Your task to perform on an android device: show emergency info Image 0: 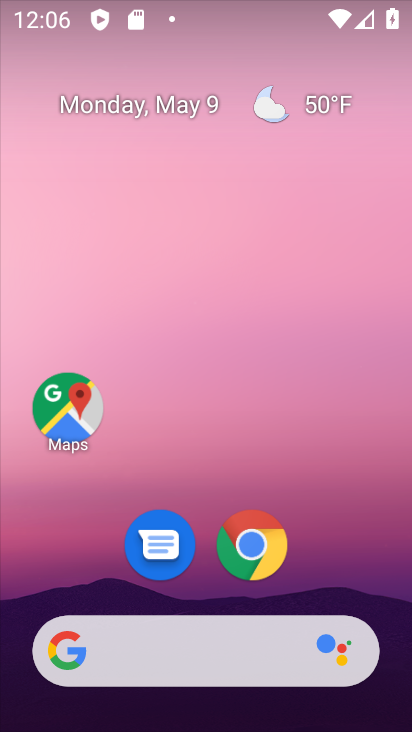
Step 0: drag from (222, 582) to (239, 23)
Your task to perform on an android device: show emergency info Image 1: 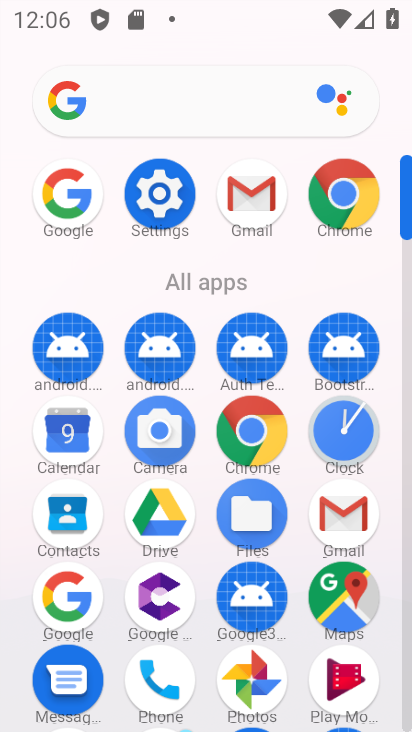
Step 1: click (161, 176)
Your task to perform on an android device: show emergency info Image 2: 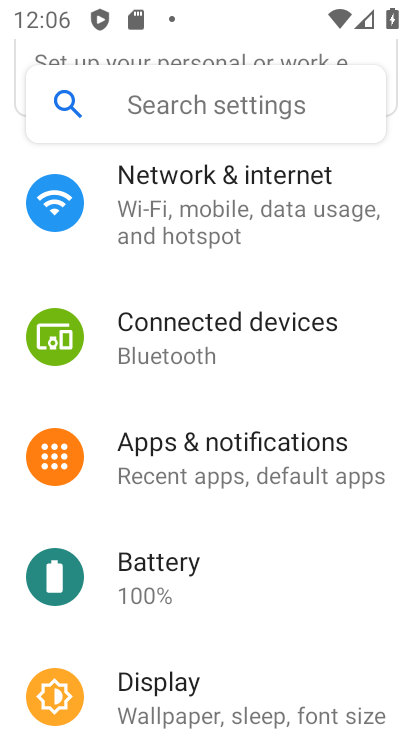
Step 2: drag from (204, 641) to (174, 174)
Your task to perform on an android device: show emergency info Image 3: 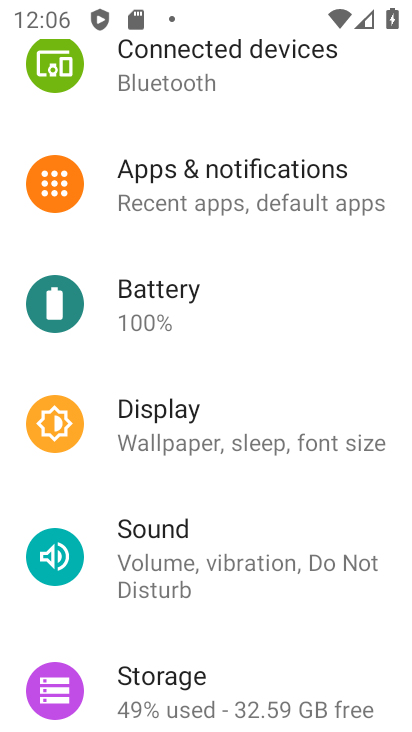
Step 3: drag from (219, 667) to (225, 191)
Your task to perform on an android device: show emergency info Image 4: 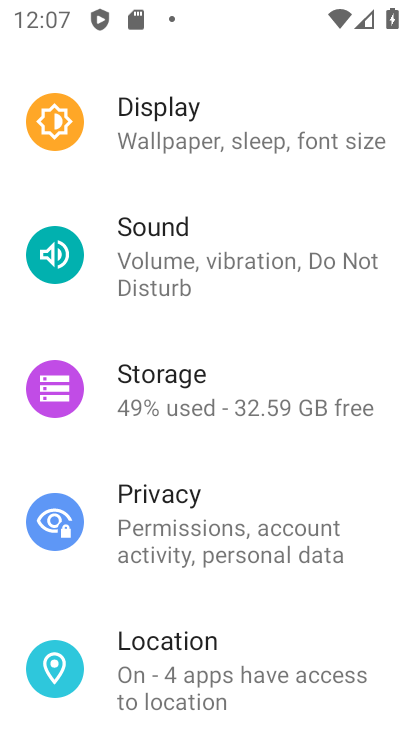
Step 4: drag from (198, 674) to (248, 123)
Your task to perform on an android device: show emergency info Image 5: 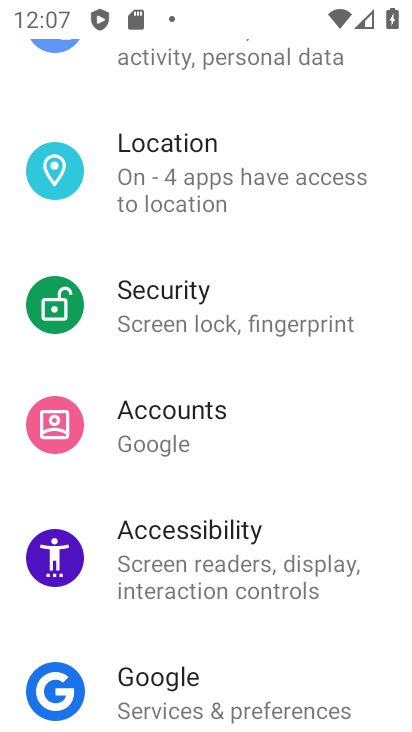
Step 5: drag from (205, 600) to (213, 186)
Your task to perform on an android device: show emergency info Image 6: 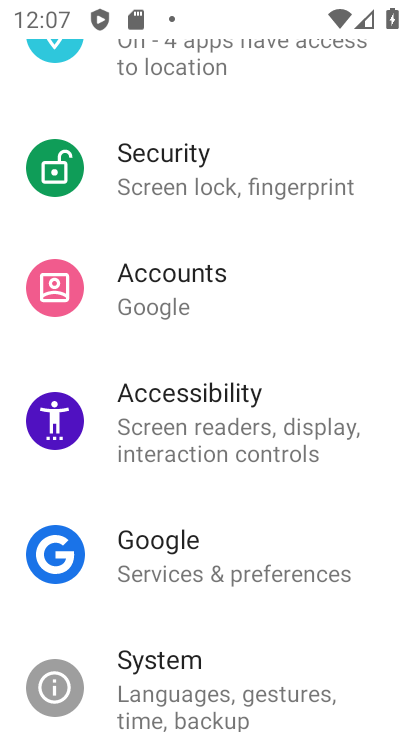
Step 6: drag from (177, 616) to (190, 204)
Your task to perform on an android device: show emergency info Image 7: 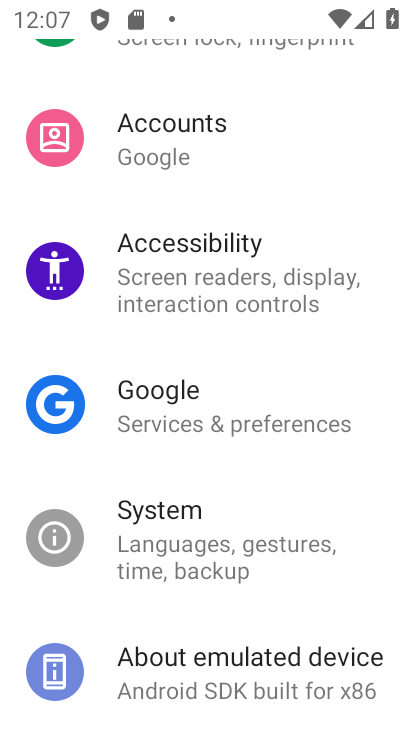
Step 7: drag from (198, 638) to (221, 283)
Your task to perform on an android device: show emergency info Image 8: 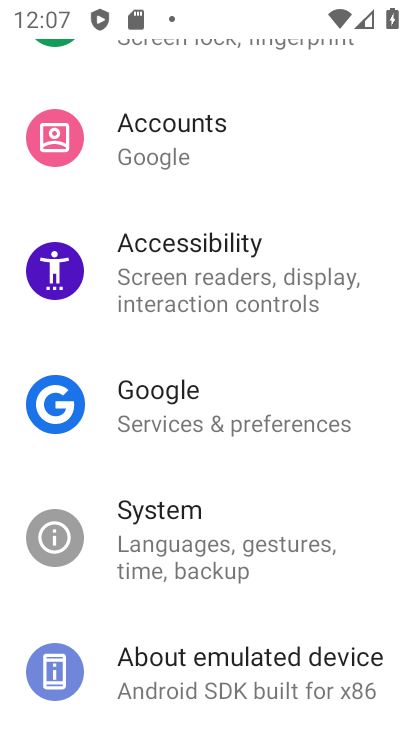
Step 8: click (212, 652)
Your task to perform on an android device: show emergency info Image 9: 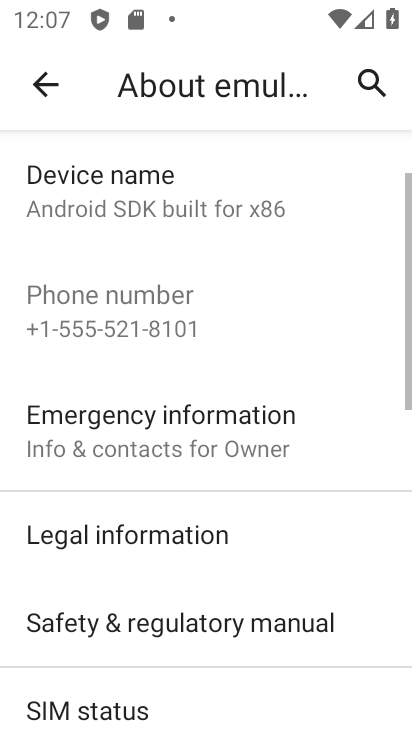
Step 9: drag from (238, 656) to (239, 282)
Your task to perform on an android device: show emergency info Image 10: 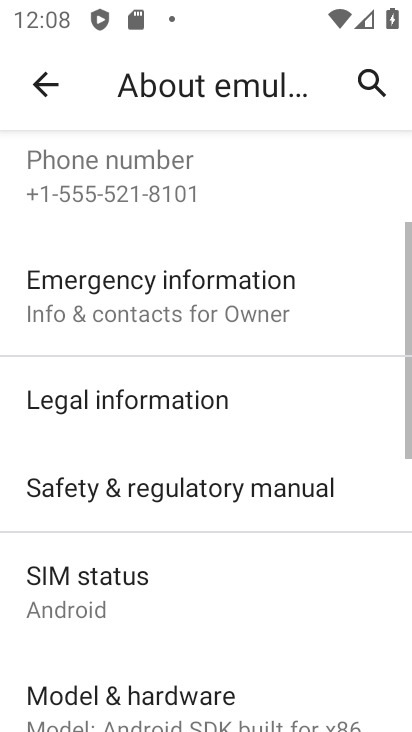
Step 10: drag from (175, 592) to (192, 295)
Your task to perform on an android device: show emergency info Image 11: 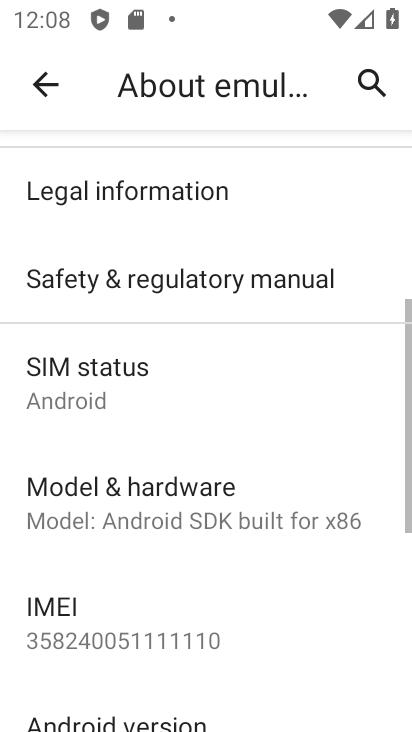
Step 11: drag from (148, 662) to (162, 596)
Your task to perform on an android device: show emergency info Image 12: 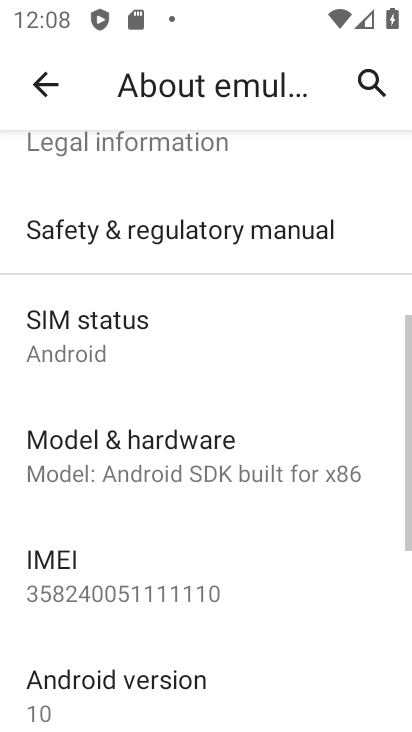
Step 12: drag from (251, 236) to (283, 522)
Your task to perform on an android device: show emergency info Image 13: 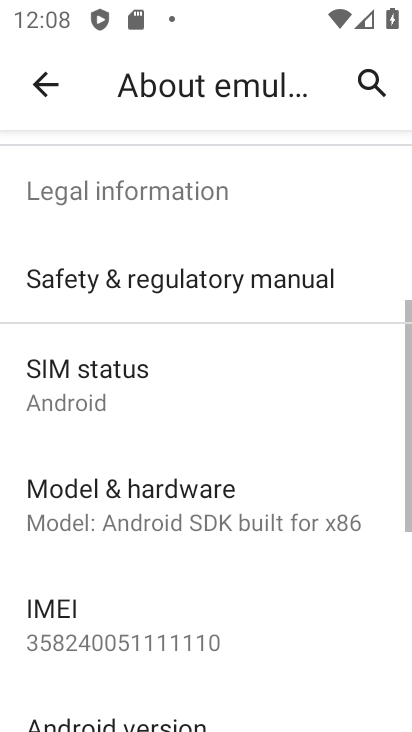
Step 13: drag from (232, 224) to (224, 494)
Your task to perform on an android device: show emergency info Image 14: 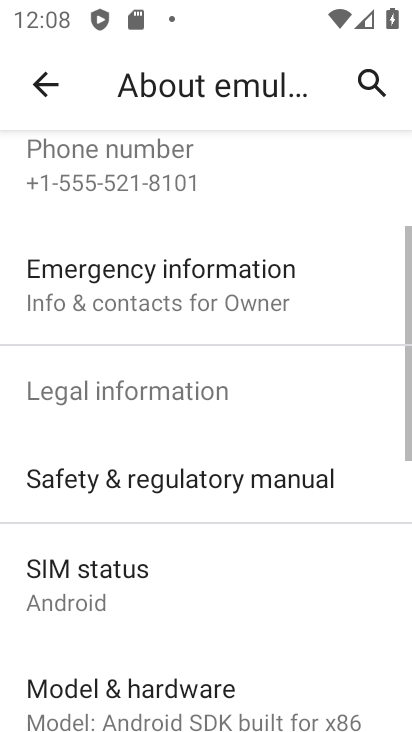
Step 14: click (154, 236)
Your task to perform on an android device: show emergency info Image 15: 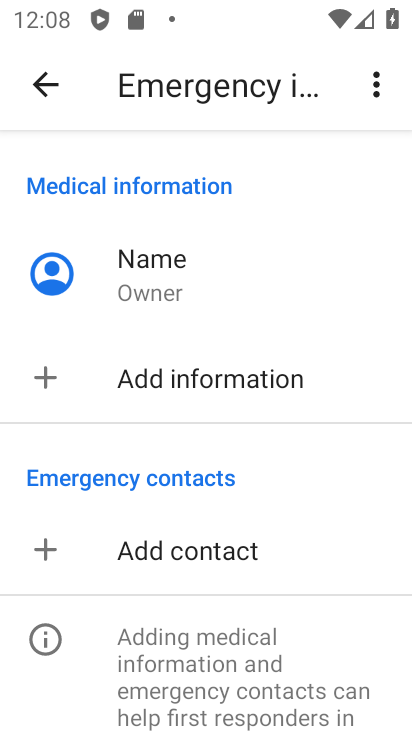
Step 15: task complete